Your task to perform on an android device: toggle notifications settings in the gmail app Image 0: 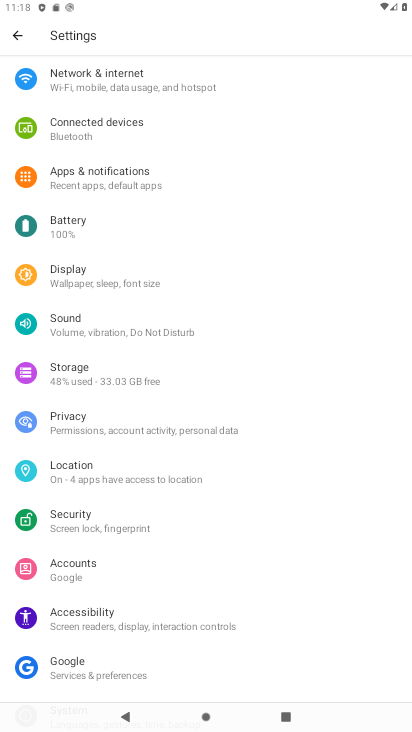
Step 0: press home button
Your task to perform on an android device: toggle notifications settings in the gmail app Image 1: 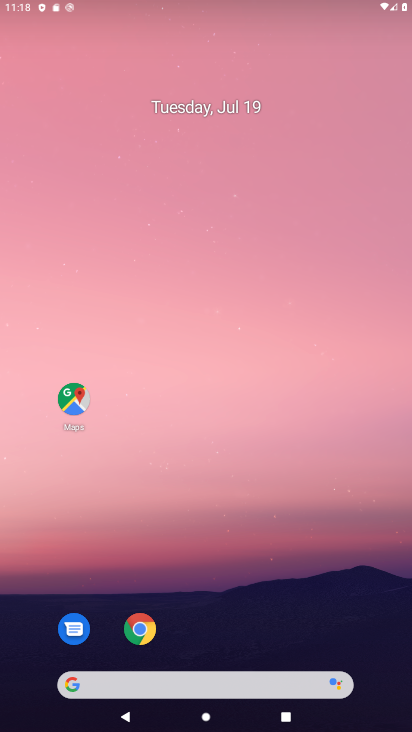
Step 1: drag from (314, 588) to (235, 59)
Your task to perform on an android device: toggle notifications settings in the gmail app Image 2: 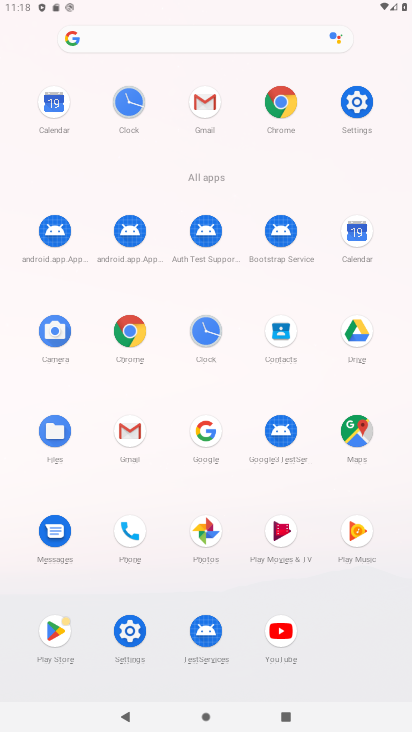
Step 2: click (209, 100)
Your task to perform on an android device: toggle notifications settings in the gmail app Image 3: 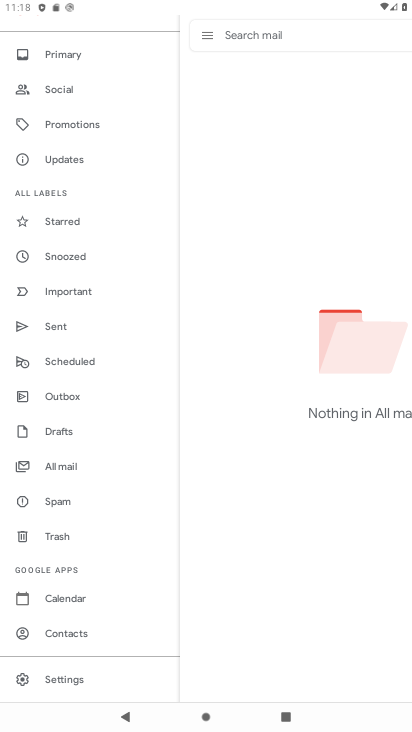
Step 3: click (65, 684)
Your task to perform on an android device: toggle notifications settings in the gmail app Image 4: 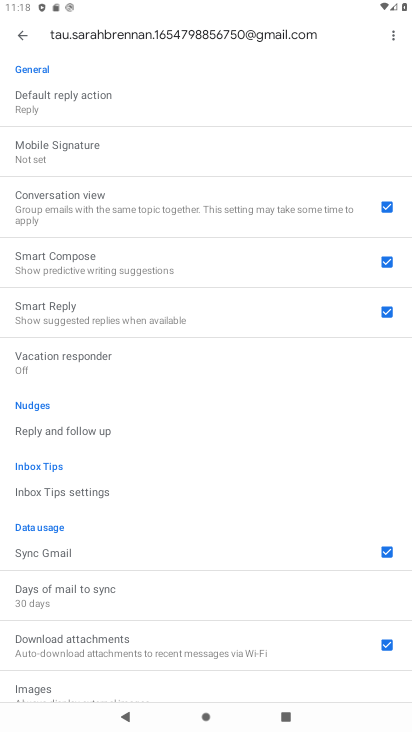
Step 4: drag from (207, 123) to (240, 471)
Your task to perform on an android device: toggle notifications settings in the gmail app Image 5: 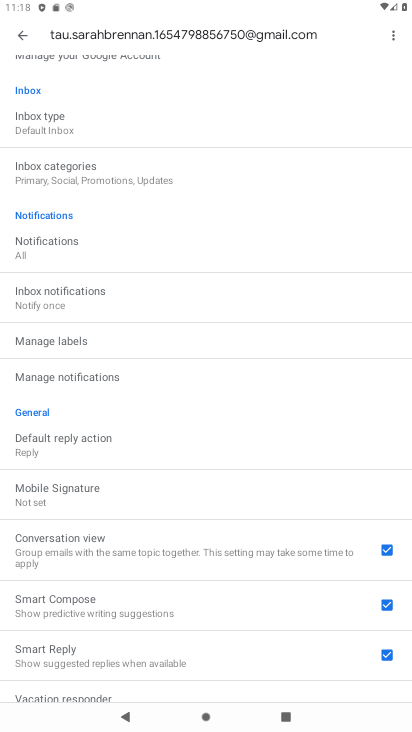
Step 5: click (107, 373)
Your task to perform on an android device: toggle notifications settings in the gmail app Image 6: 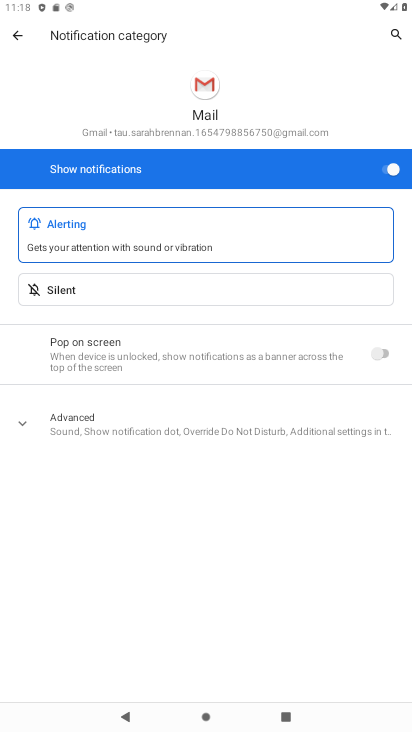
Step 6: click (389, 162)
Your task to perform on an android device: toggle notifications settings in the gmail app Image 7: 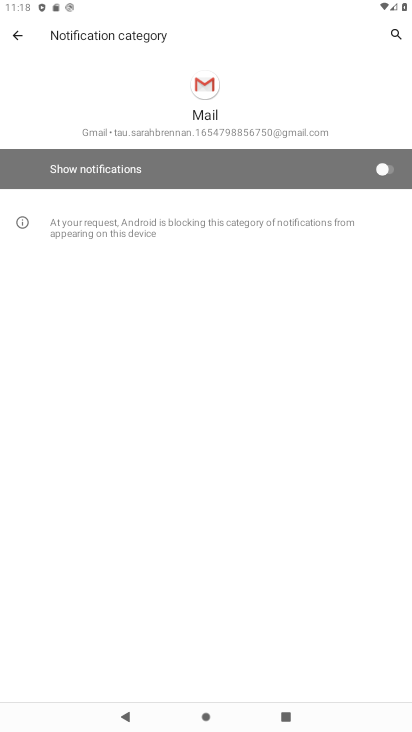
Step 7: task complete